Your task to perform on an android device: toggle translation in the chrome app Image 0: 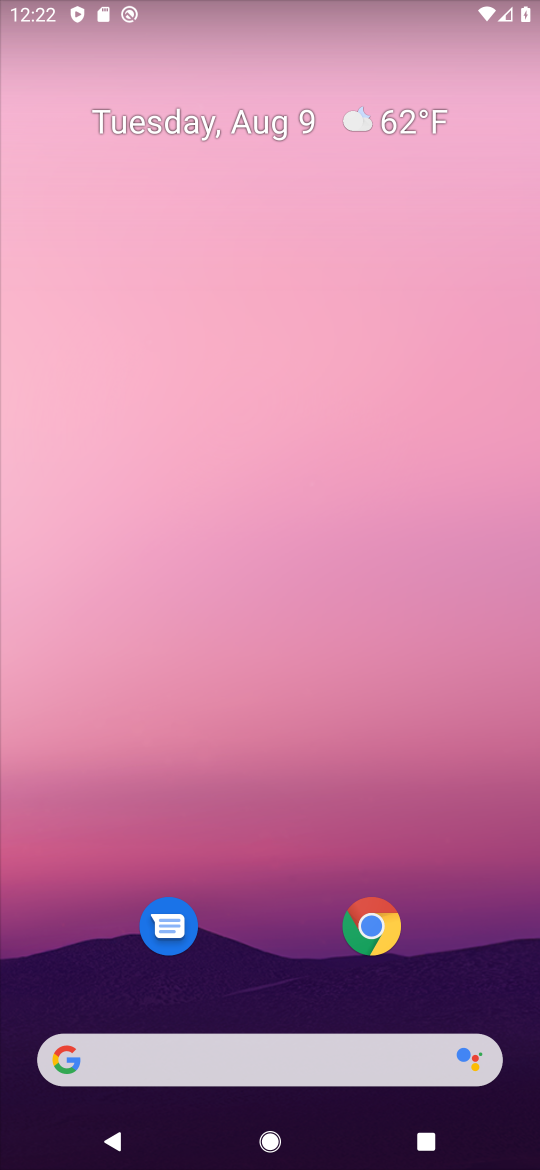
Step 0: click (376, 923)
Your task to perform on an android device: toggle translation in the chrome app Image 1: 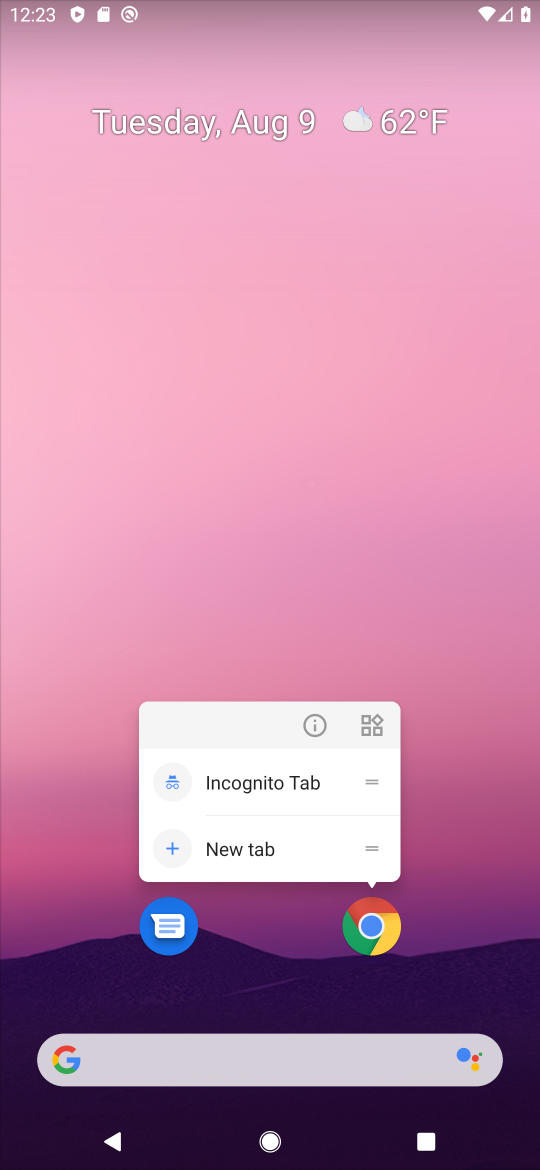
Step 1: click (372, 911)
Your task to perform on an android device: toggle translation in the chrome app Image 2: 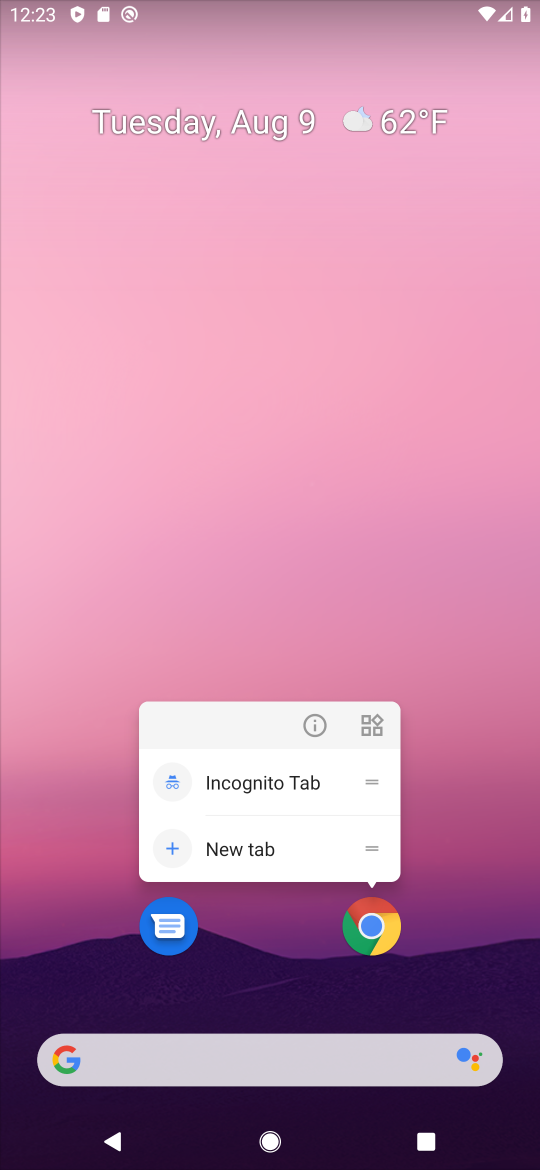
Step 2: click (378, 904)
Your task to perform on an android device: toggle translation in the chrome app Image 3: 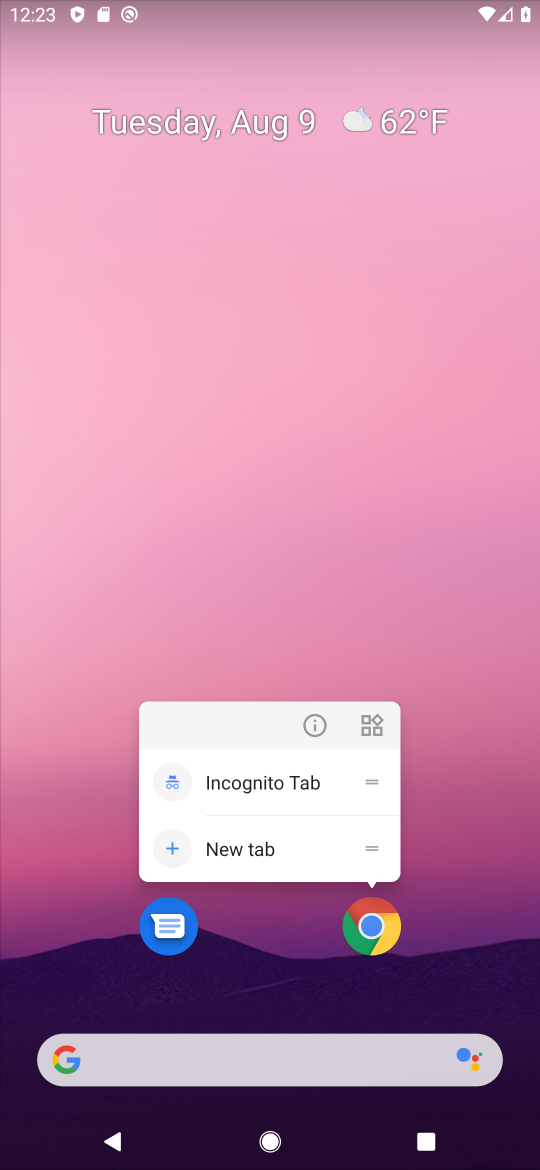
Step 3: click (366, 922)
Your task to perform on an android device: toggle translation in the chrome app Image 4: 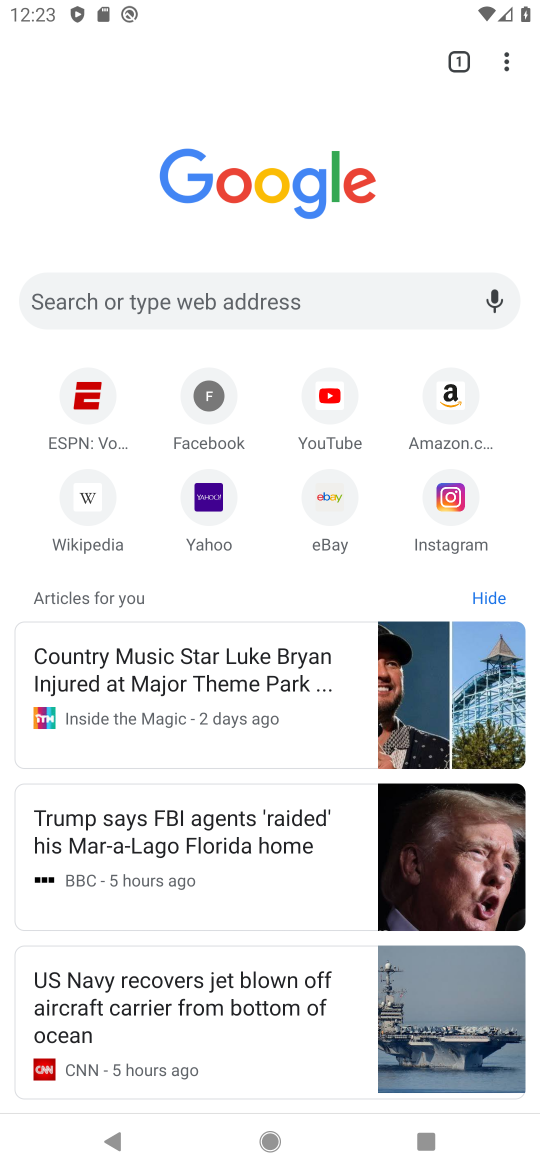
Step 4: click (505, 62)
Your task to perform on an android device: toggle translation in the chrome app Image 5: 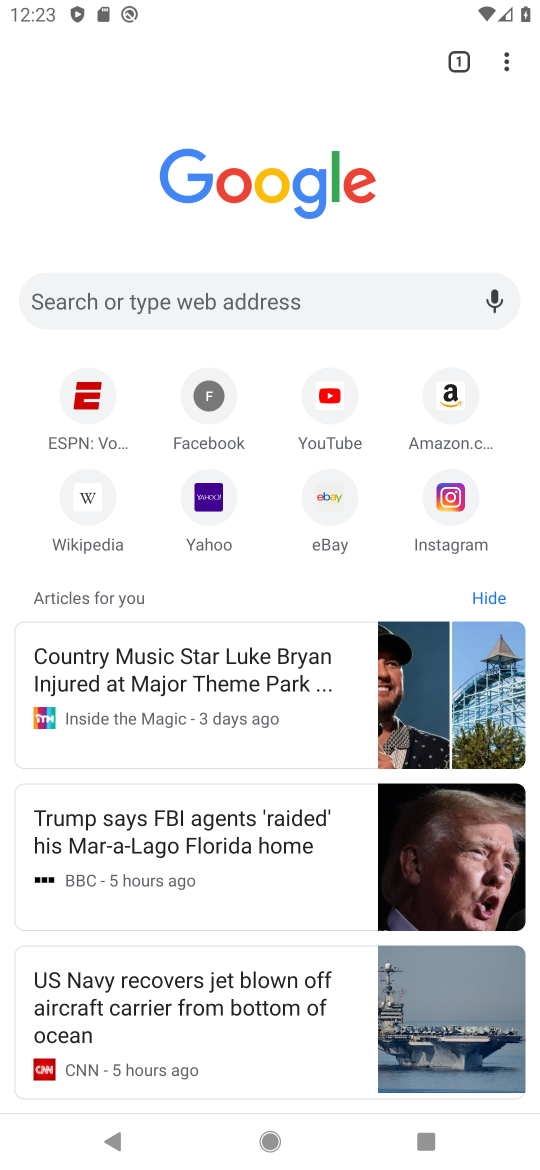
Step 5: click (504, 57)
Your task to perform on an android device: toggle translation in the chrome app Image 6: 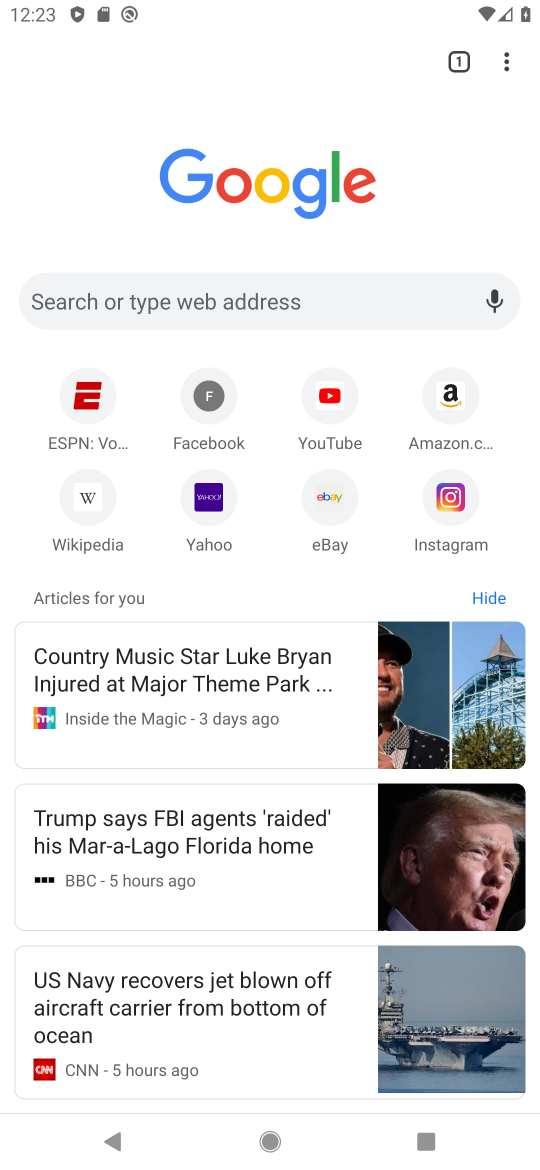
Step 6: click (517, 60)
Your task to perform on an android device: toggle translation in the chrome app Image 7: 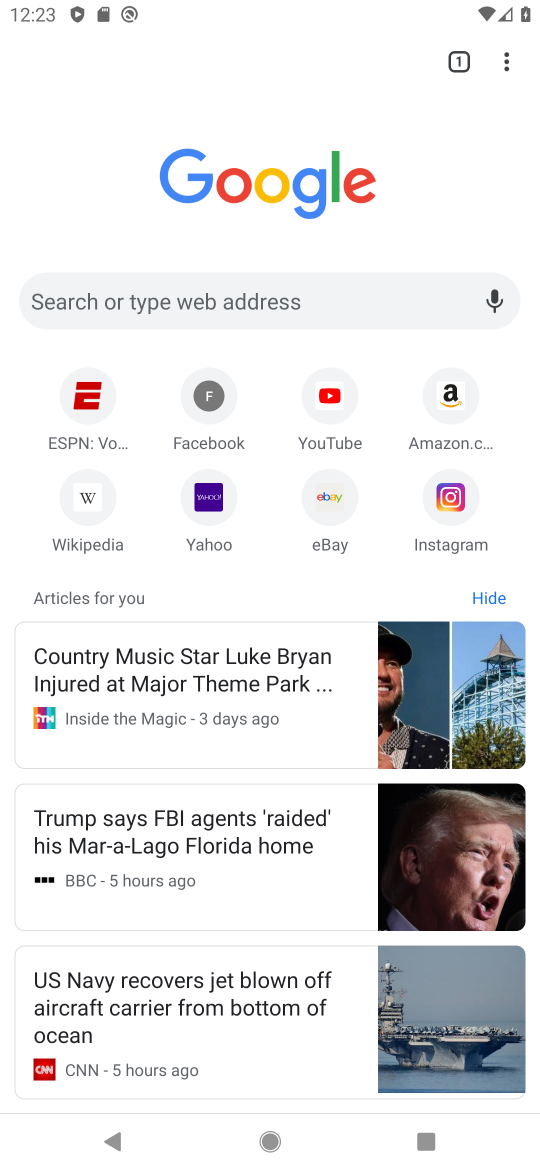
Step 7: click (509, 60)
Your task to perform on an android device: toggle translation in the chrome app Image 8: 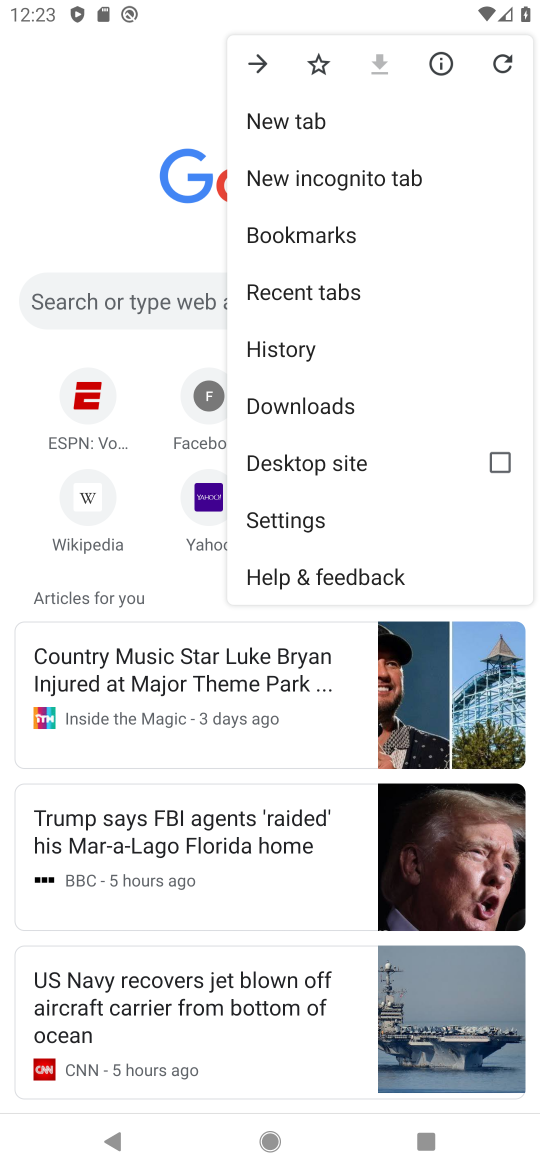
Step 8: click (288, 505)
Your task to perform on an android device: toggle translation in the chrome app Image 9: 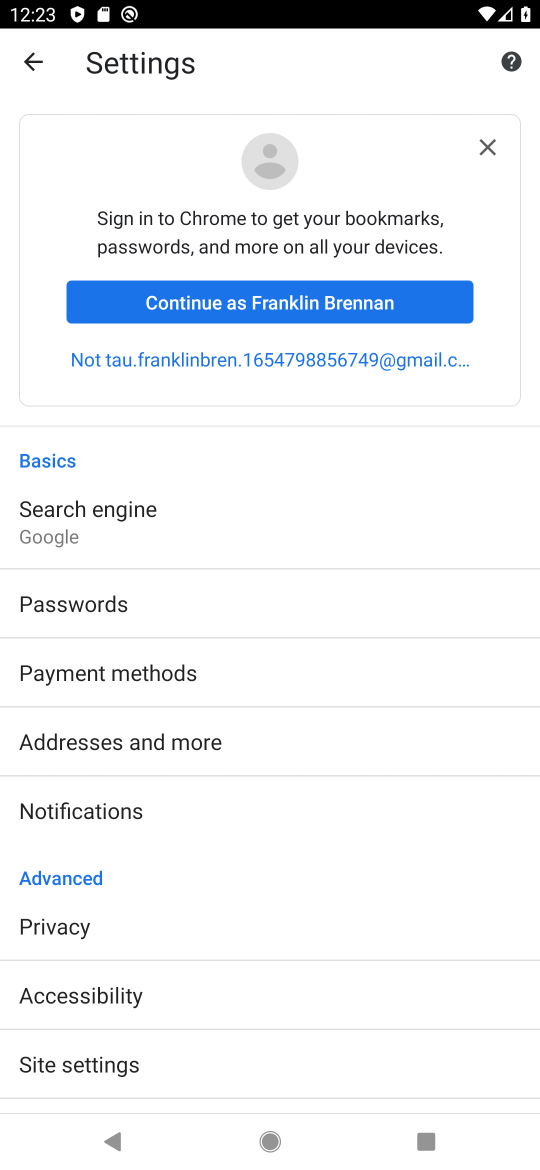
Step 9: drag from (55, 798) to (273, 353)
Your task to perform on an android device: toggle translation in the chrome app Image 10: 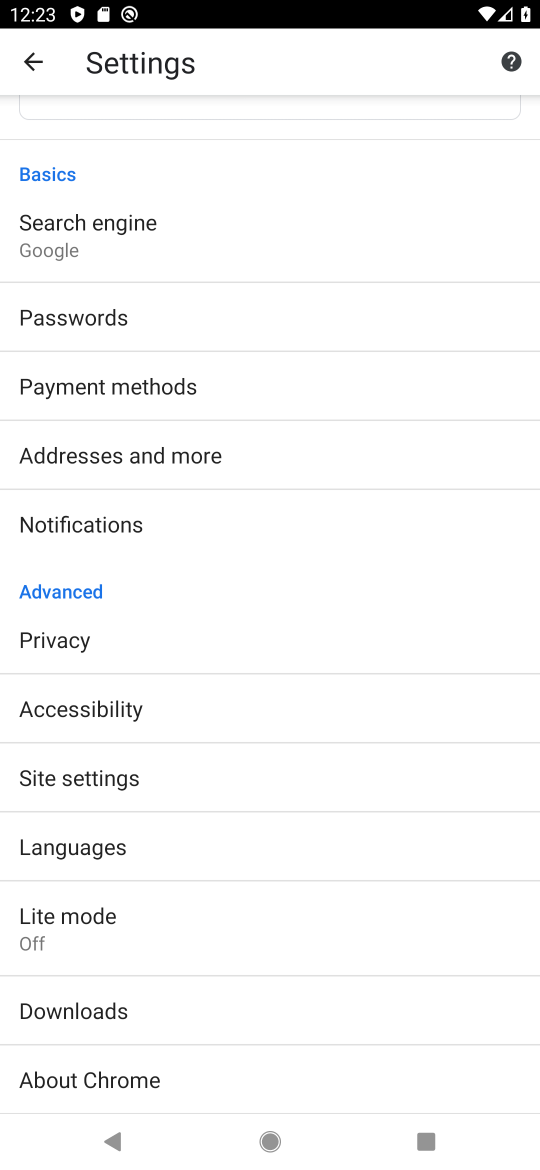
Step 10: click (80, 844)
Your task to perform on an android device: toggle translation in the chrome app Image 11: 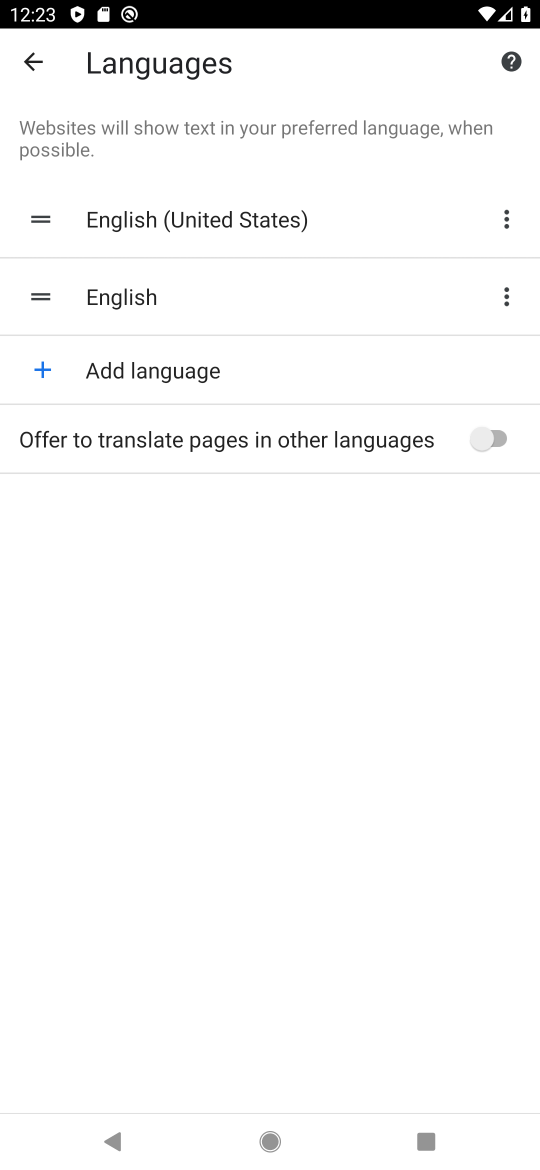
Step 11: click (488, 441)
Your task to perform on an android device: toggle translation in the chrome app Image 12: 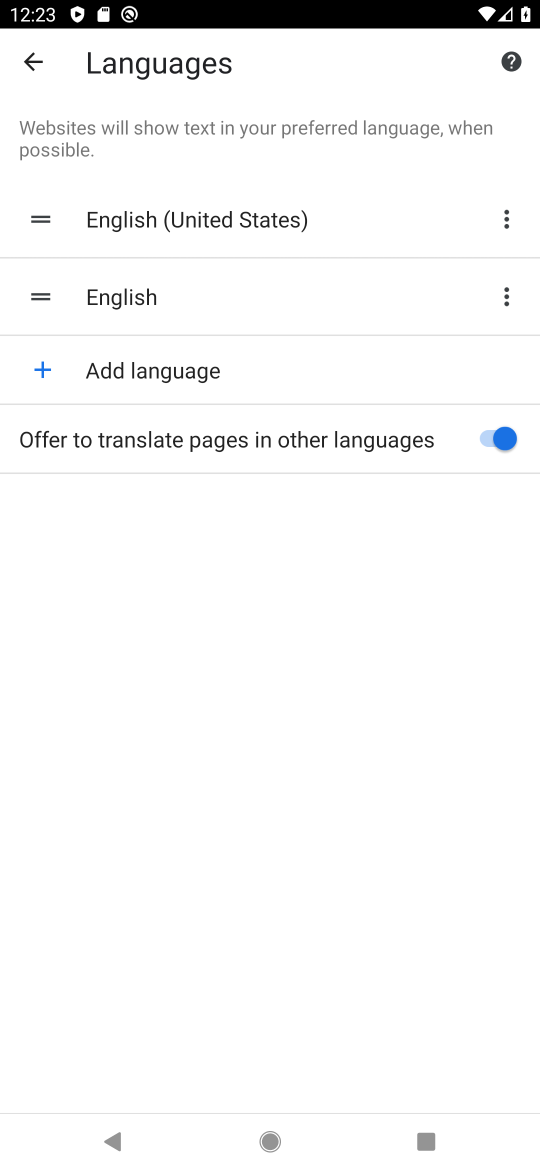
Step 12: task complete